Your task to perform on an android device: Add sony triple a to the cart on target.com, then select checkout. Image 0: 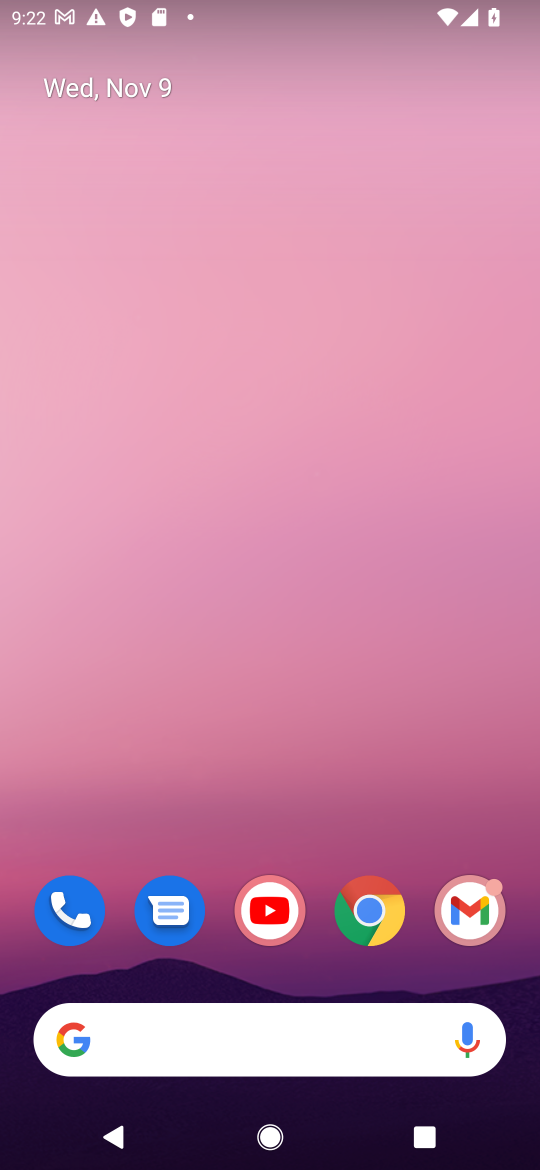
Step 0: click (379, 921)
Your task to perform on an android device: Add sony triple a to the cart on target.com, then select checkout. Image 1: 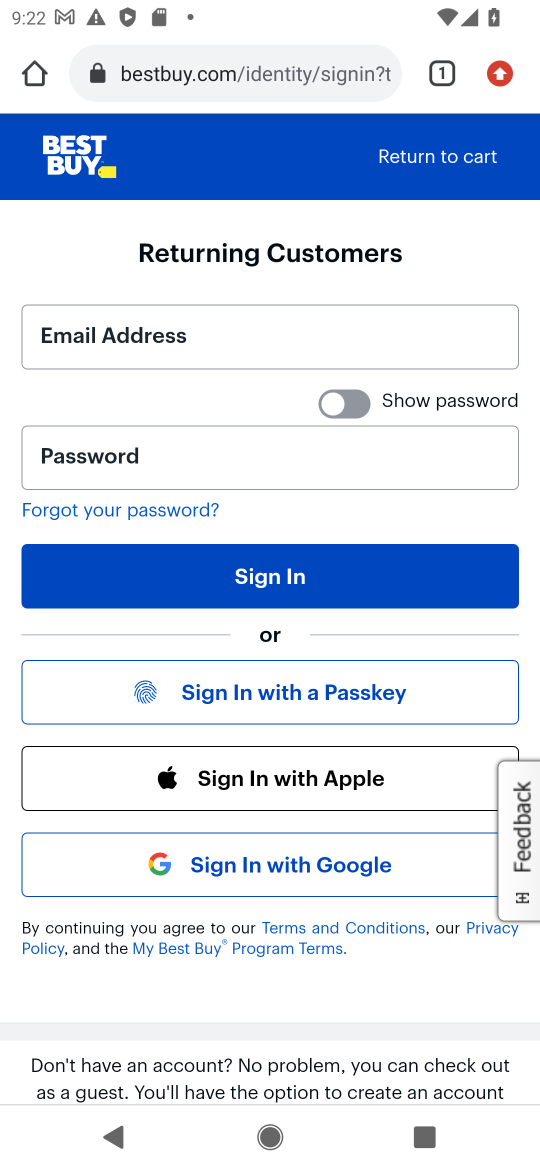
Step 1: click (256, 62)
Your task to perform on an android device: Add sony triple a to the cart on target.com, then select checkout. Image 2: 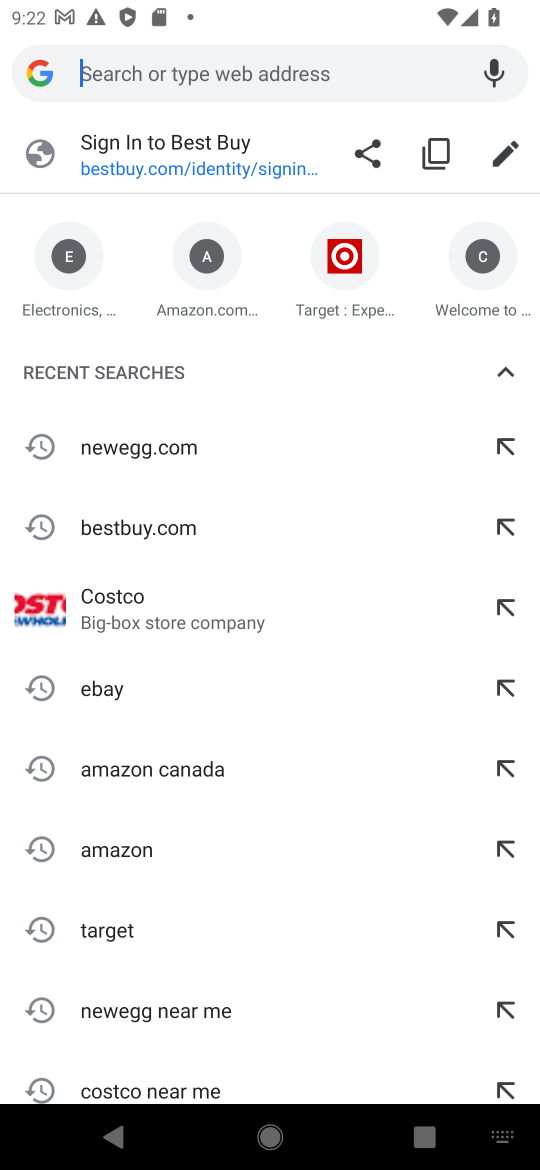
Step 2: click (330, 268)
Your task to perform on an android device: Add sony triple a to the cart on target.com, then select checkout. Image 3: 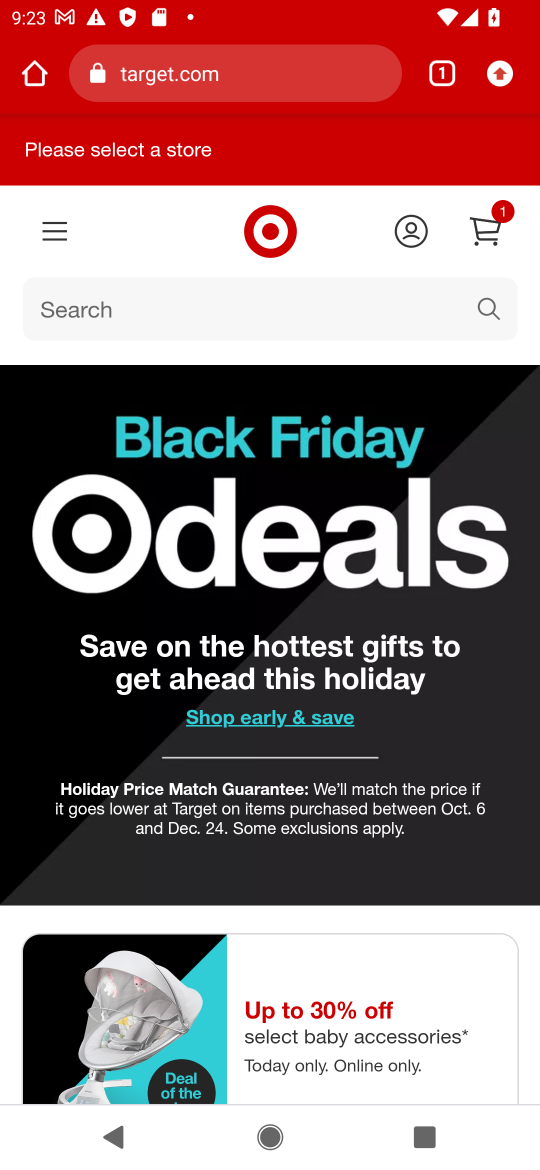
Step 3: click (481, 302)
Your task to perform on an android device: Add sony triple a to the cart on target.com, then select checkout. Image 4: 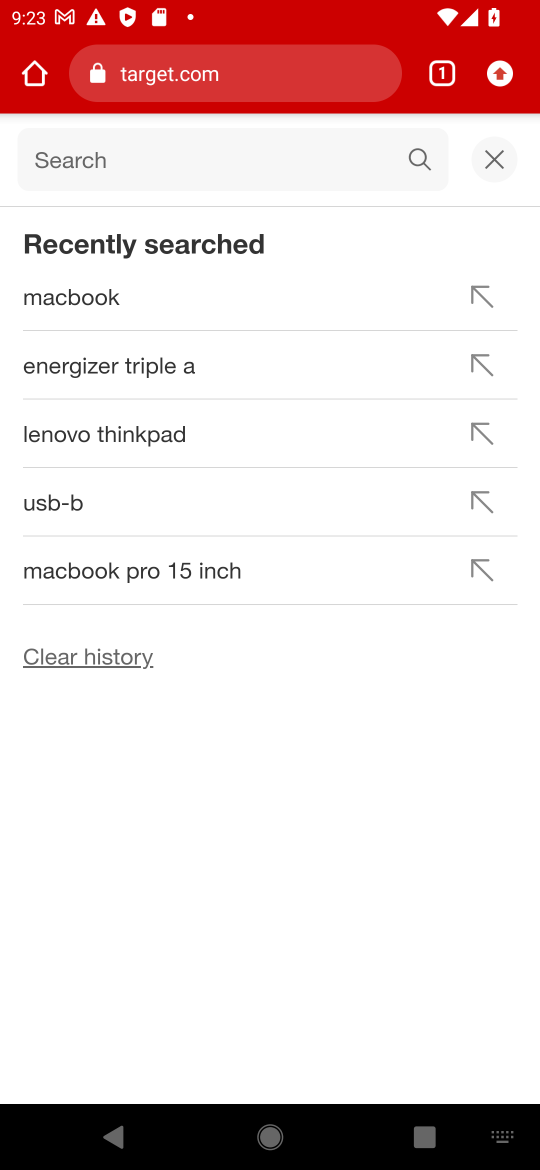
Step 4: type "sony triple a"
Your task to perform on an android device: Add sony triple a to the cart on target.com, then select checkout. Image 5: 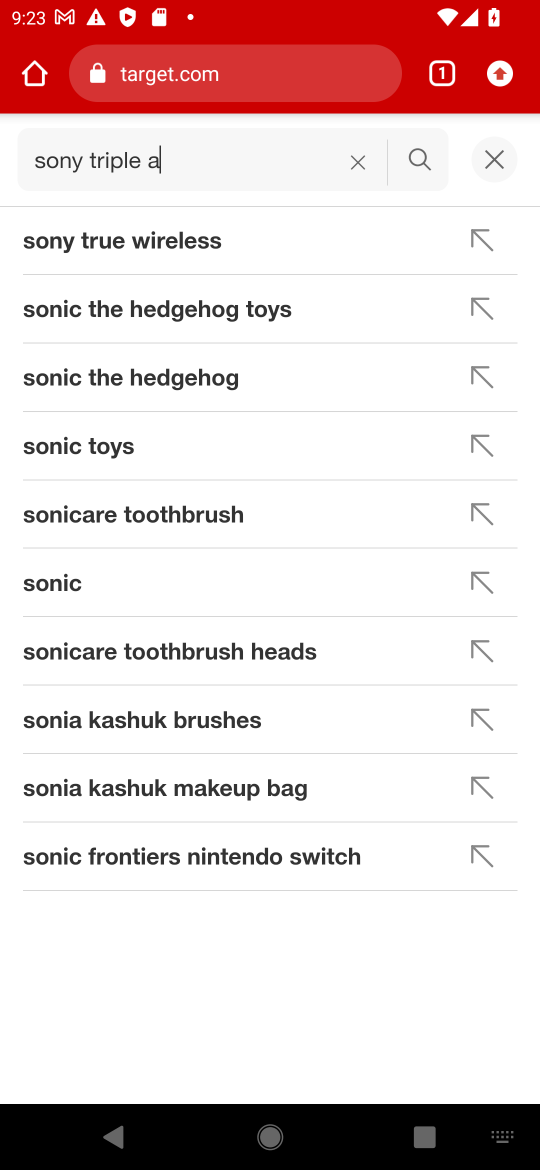
Step 5: click (421, 158)
Your task to perform on an android device: Add sony triple a to the cart on target.com, then select checkout. Image 6: 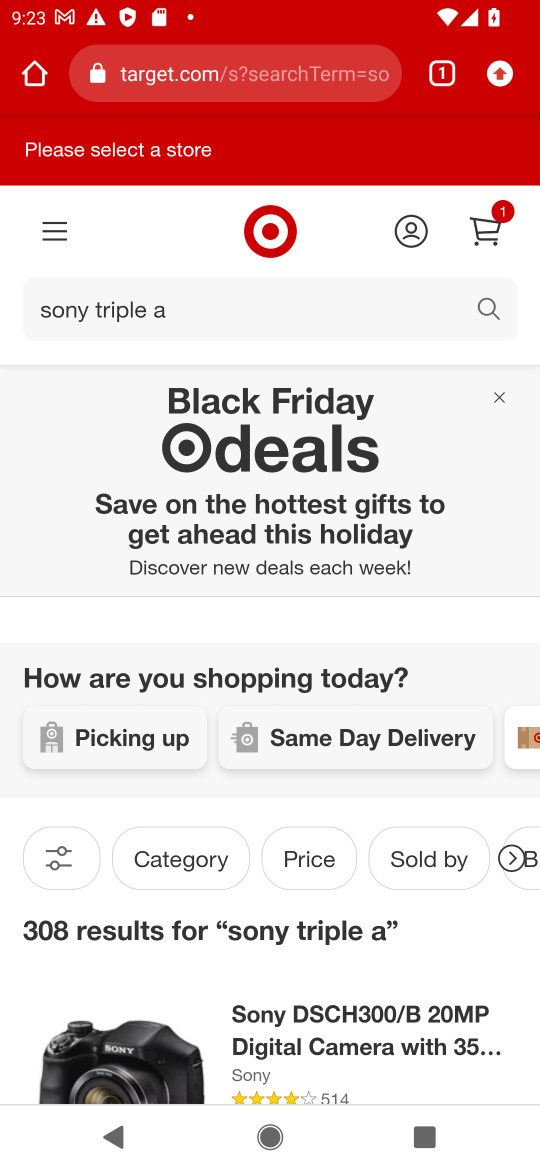
Step 6: task complete